Your task to perform on an android device: stop showing notifications on the lock screen Image 0: 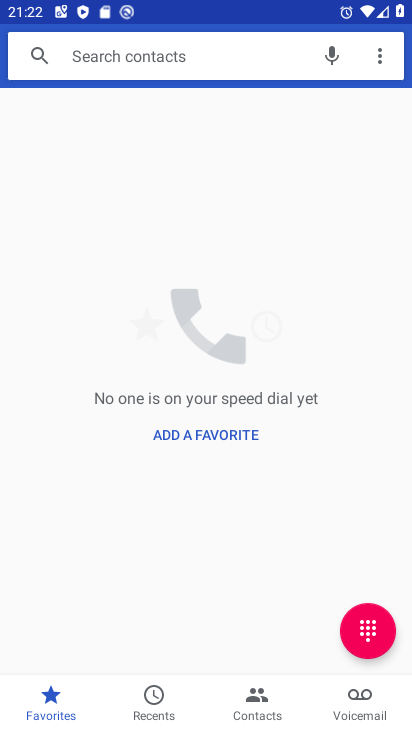
Step 0: press home button
Your task to perform on an android device: stop showing notifications on the lock screen Image 1: 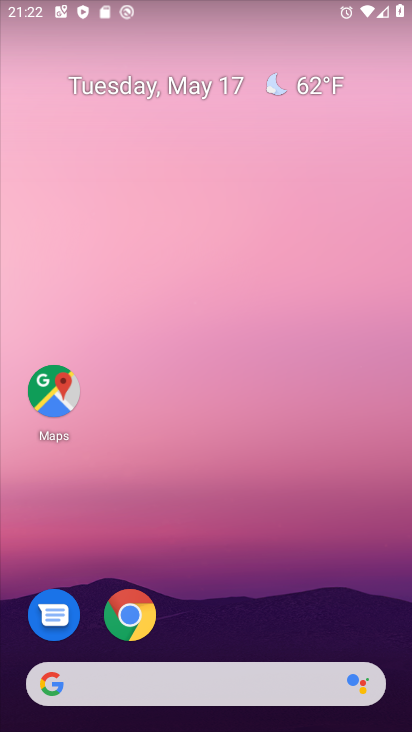
Step 1: drag from (262, 601) to (248, 110)
Your task to perform on an android device: stop showing notifications on the lock screen Image 2: 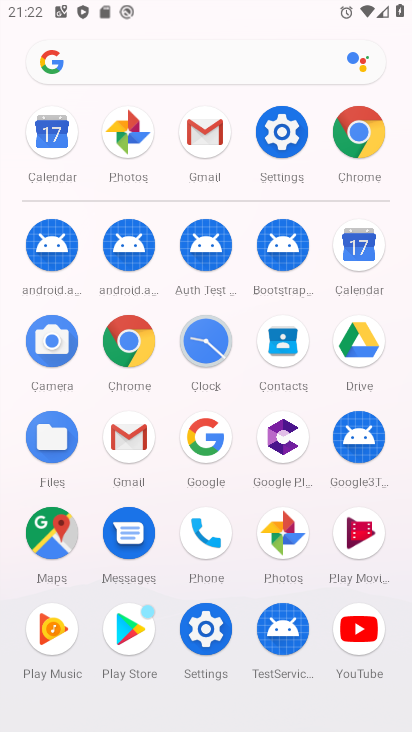
Step 2: click (275, 136)
Your task to perform on an android device: stop showing notifications on the lock screen Image 3: 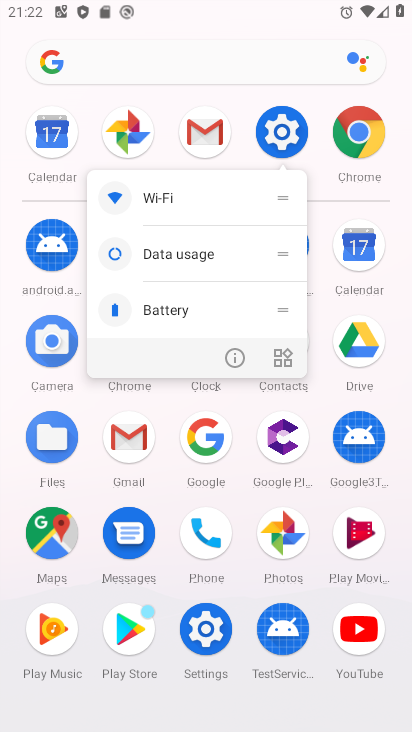
Step 3: click (291, 130)
Your task to perform on an android device: stop showing notifications on the lock screen Image 4: 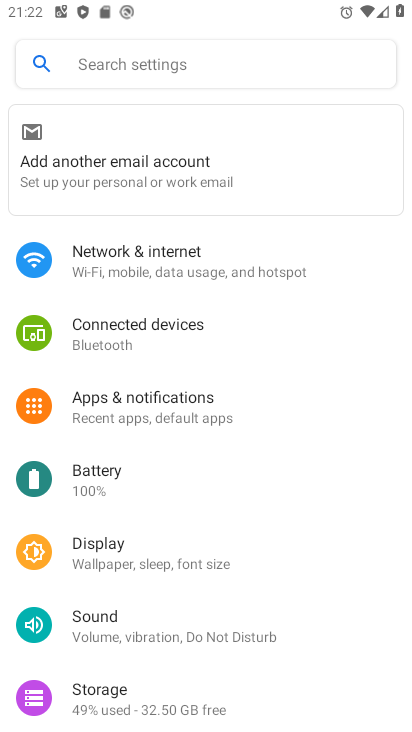
Step 4: click (170, 407)
Your task to perform on an android device: stop showing notifications on the lock screen Image 5: 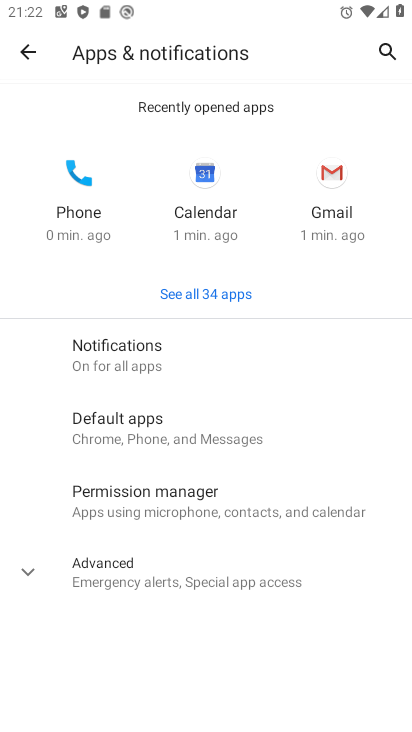
Step 5: click (137, 358)
Your task to perform on an android device: stop showing notifications on the lock screen Image 6: 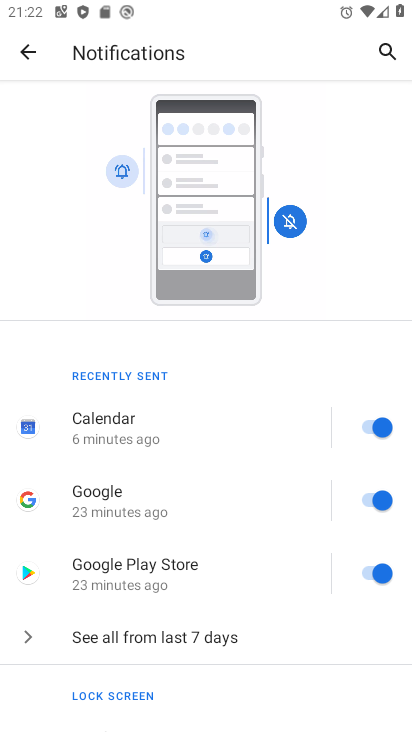
Step 6: drag from (326, 673) to (336, 204)
Your task to perform on an android device: stop showing notifications on the lock screen Image 7: 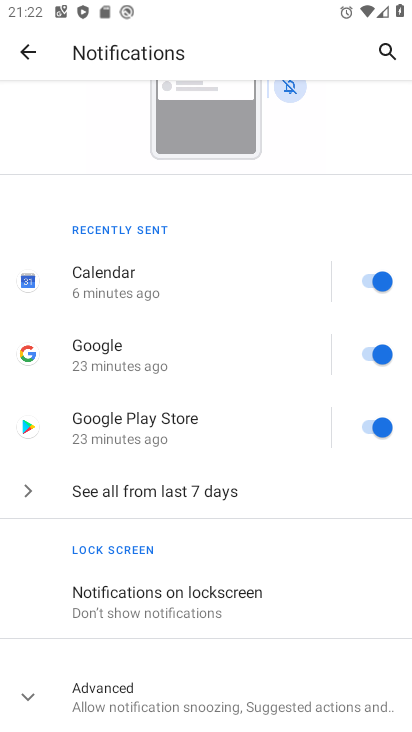
Step 7: click (172, 597)
Your task to perform on an android device: stop showing notifications on the lock screen Image 8: 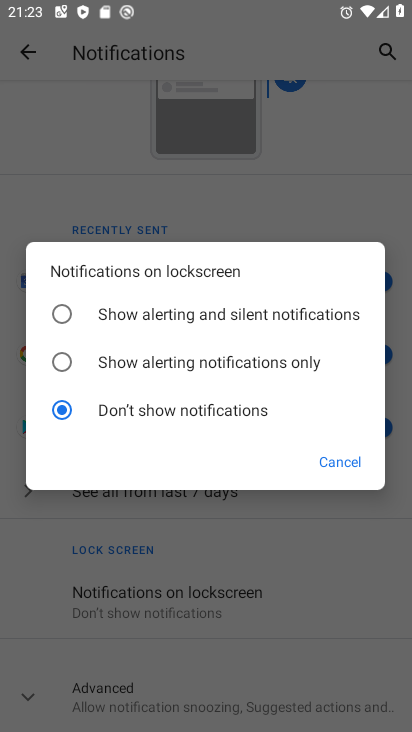
Step 8: click (210, 413)
Your task to perform on an android device: stop showing notifications on the lock screen Image 9: 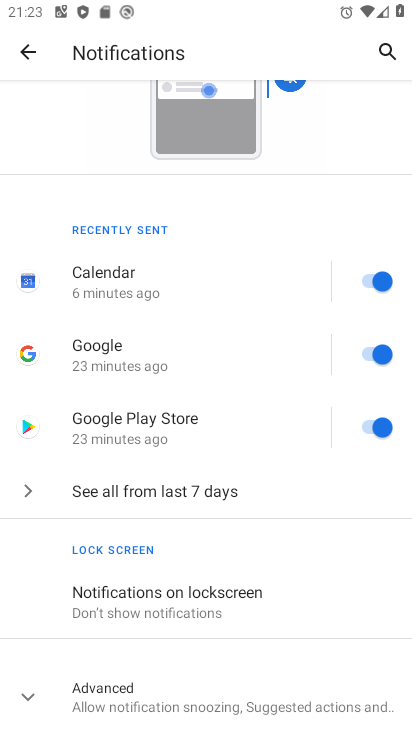
Step 9: task complete